Your task to perform on an android device: What is the news today? Image 0: 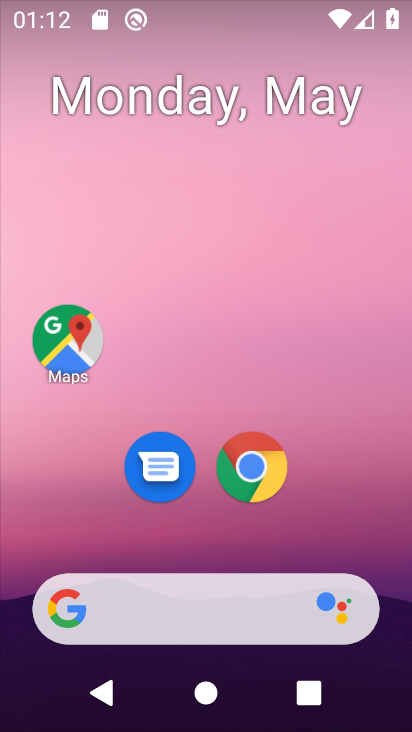
Step 0: click (223, 583)
Your task to perform on an android device: What is the news today? Image 1: 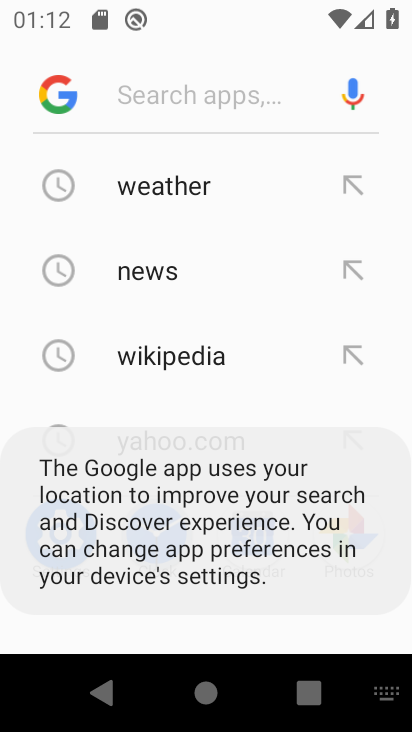
Step 1: click (187, 264)
Your task to perform on an android device: What is the news today? Image 2: 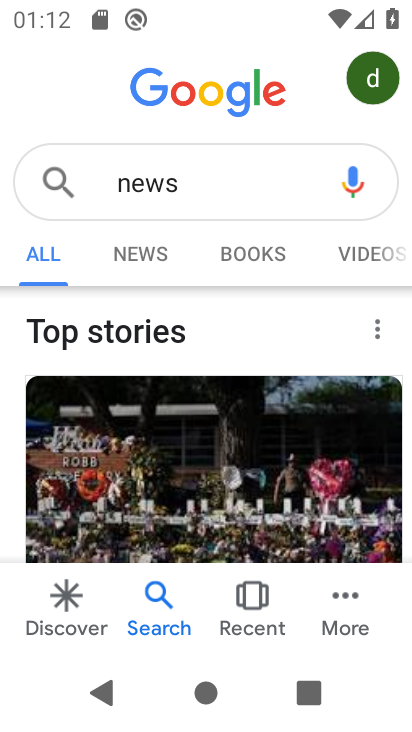
Step 2: click (127, 280)
Your task to perform on an android device: What is the news today? Image 3: 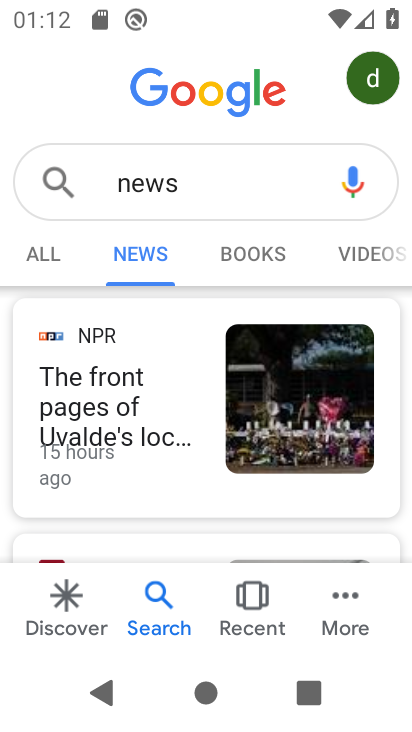
Step 3: task complete